Your task to perform on an android device: toggle notification dots Image 0: 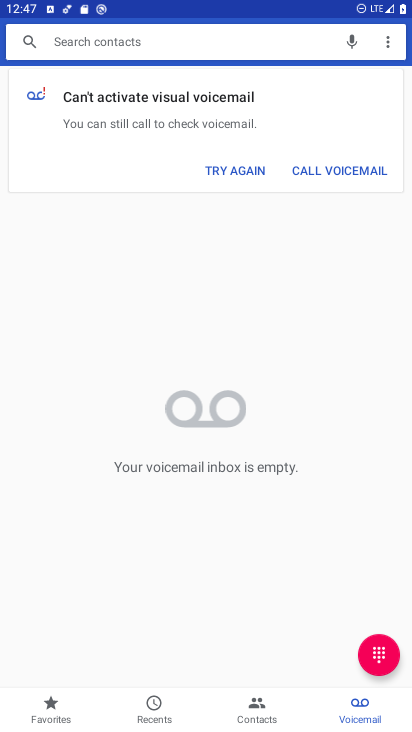
Step 0: press home button
Your task to perform on an android device: toggle notification dots Image 1: 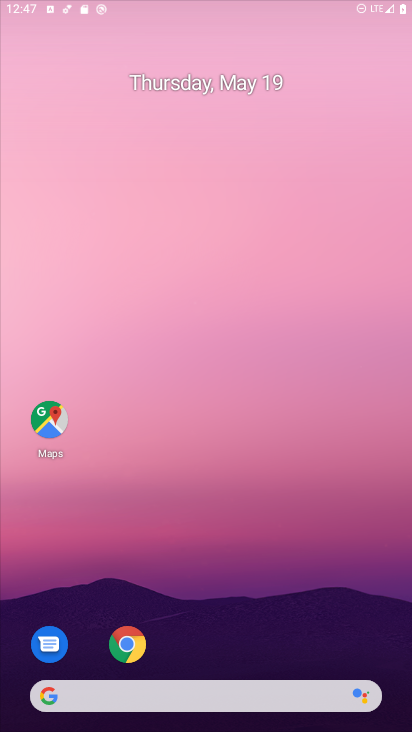
Step 1: drag from (347, 624) to (260, 47)
Your task to perform on an android device: toggle notification dots Image 2: 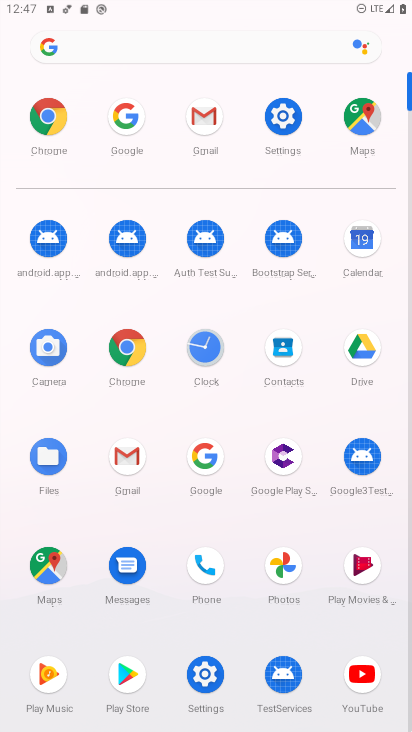
Step 2: click (283, 120)
Your task to perform on an android device: toggle notification dots Image 3: 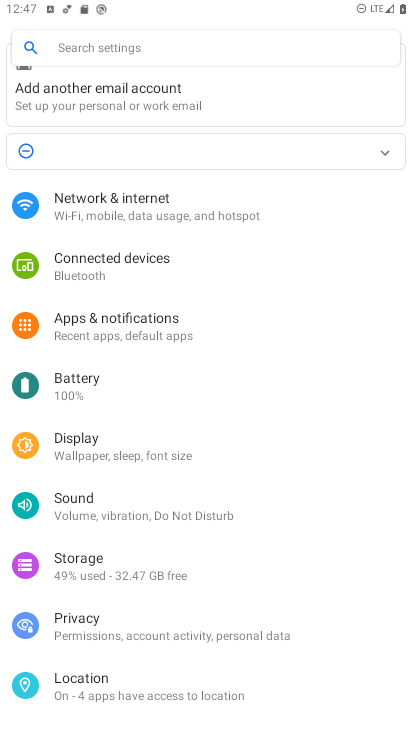
Step 3: drag from (157, 584) to (189, 404)
Your task to perform on an android device: toggle notification dots Image 4: 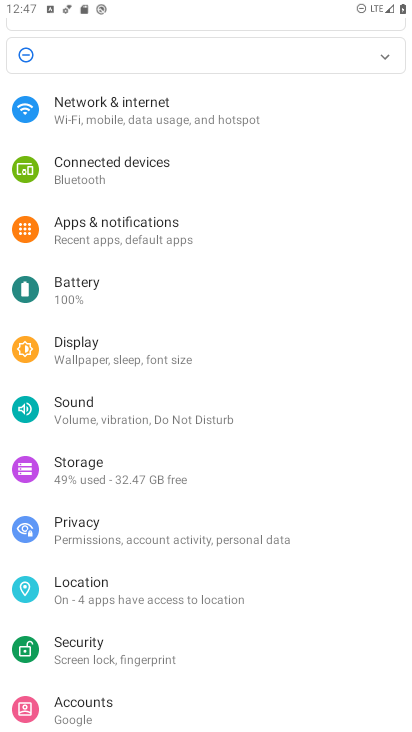
Step 4: click (179, 252)
Your task to perform on an android device: toggle notification dots Image 5: 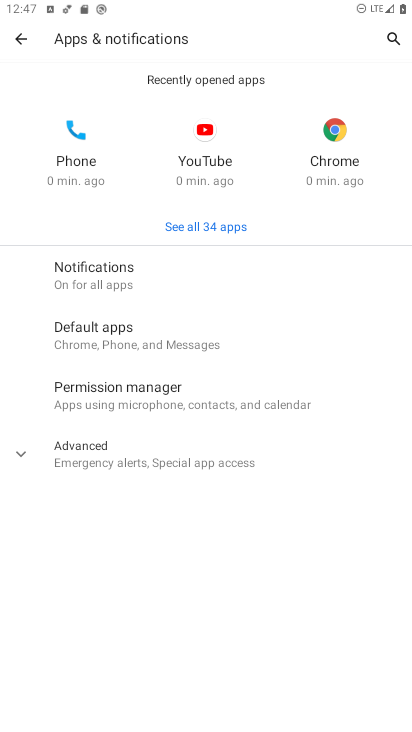
Step 5: click (174, 270)
Your task to perform on an android device: toggle notification dots Image 6: 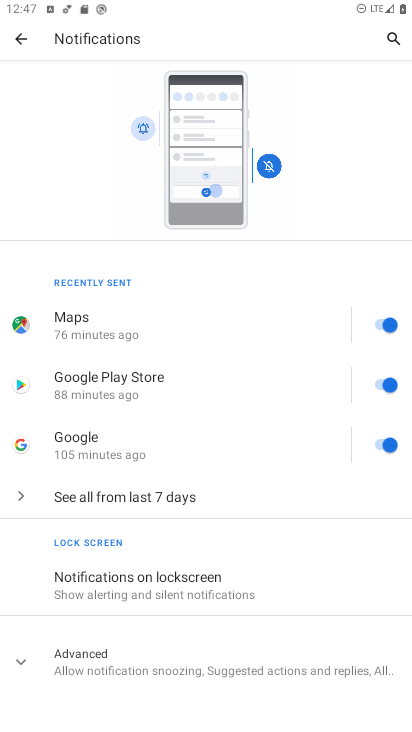
Step 6: click (108, 652)
Your task to perform on an android device: toggle notification dots Image 7: 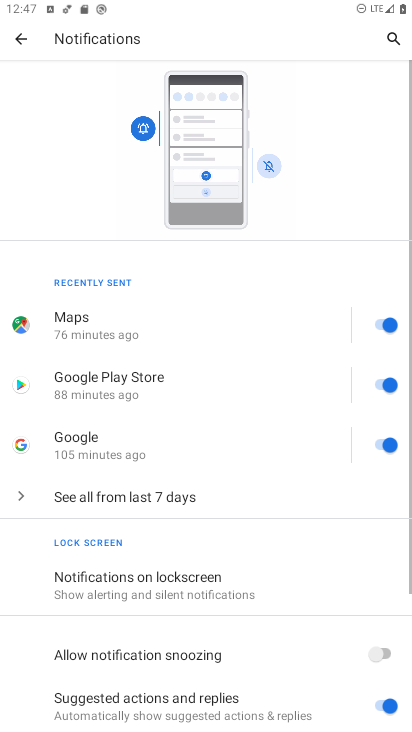
Step 7: drag from (108, 652) to (147, 254)
Your task to perform on an android device: toggle notification dots Image 8: 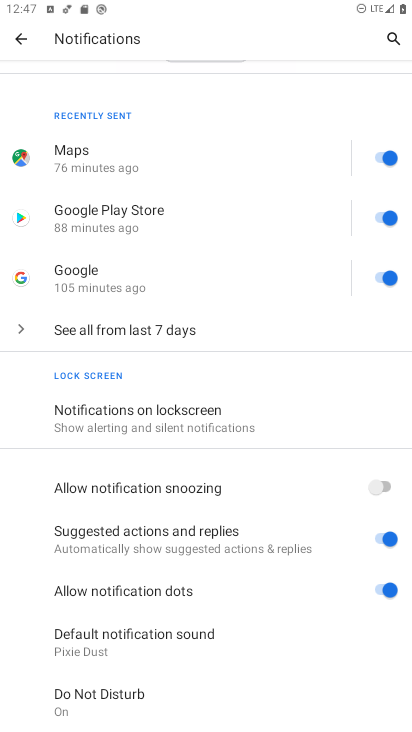
Step 8: click (258, 597)
Your task to perform on an android device: toggle notification dots Image 9: 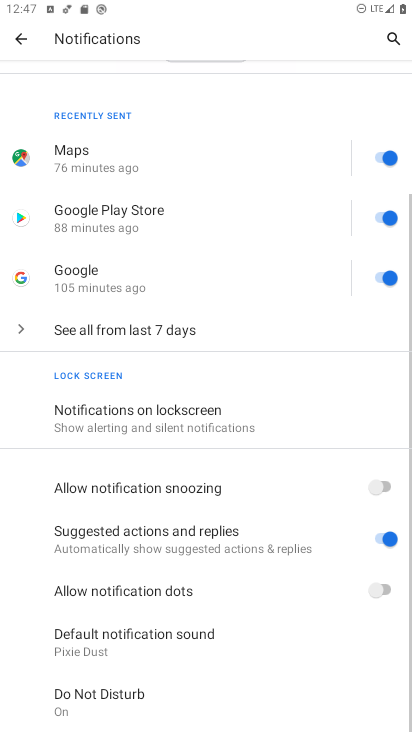
Step 9: task complete